Your task to perform on an android device: turn on showing notifications on the lock screen Image 0: 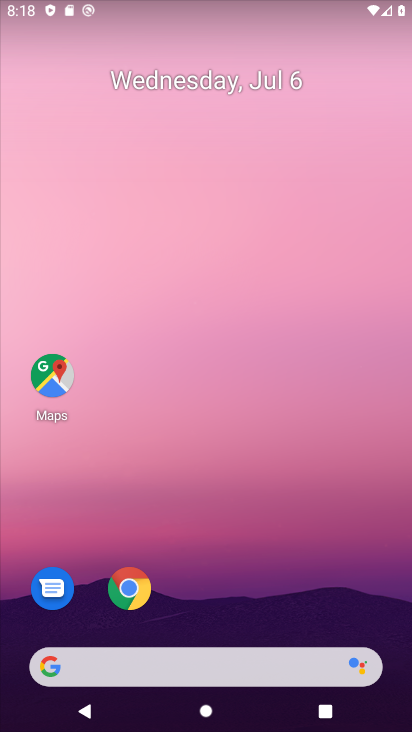
Step 0: drag from (305, 616) to (268, 42)
Your task to perform on an android device: turn on showing notifications on the lock screen Image 1: 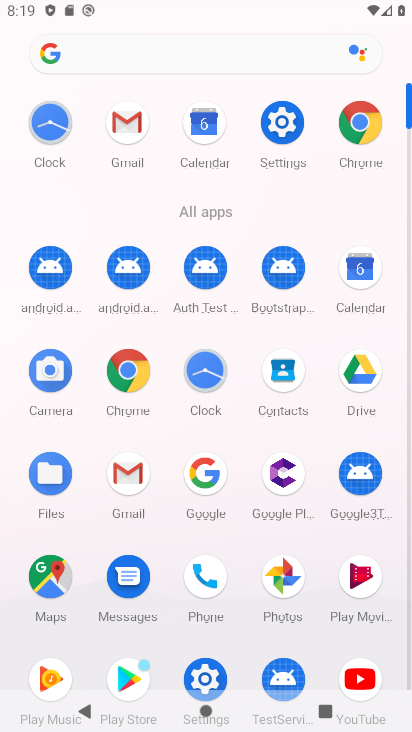
Step 1: click (203, 671)
Your task to perform on an android device: turn on showing notifications on the lock screen Image 2: 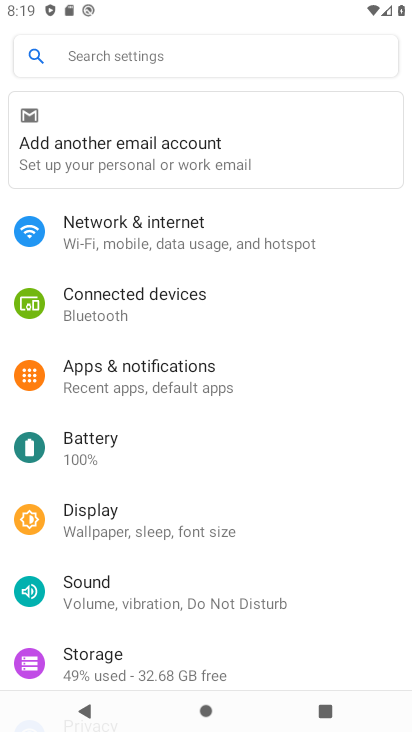
Step 2: drag from (282, 663) to (250, 429)
Your task to perform on an android device: turn on showing notifications on the lock screen Image 3: 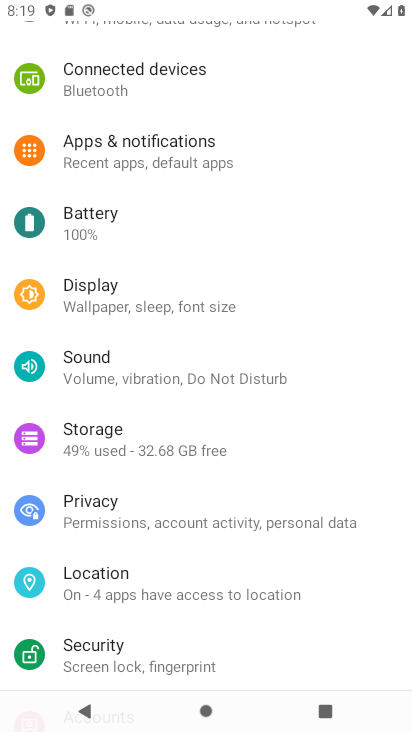
Step 3: click (264, 148)
Your task to perform on an android device: turn on showing notifications on the lock screen Image 4: 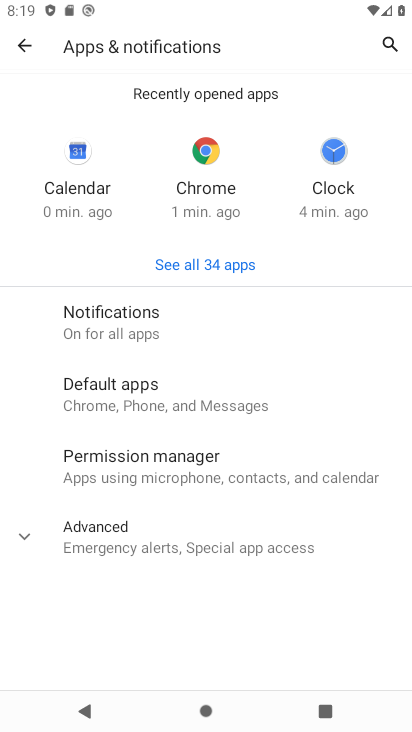
Step 4: click (248, 329)
Your task to perform on an android device: turn on showing notifications on the lock screen Image 5: 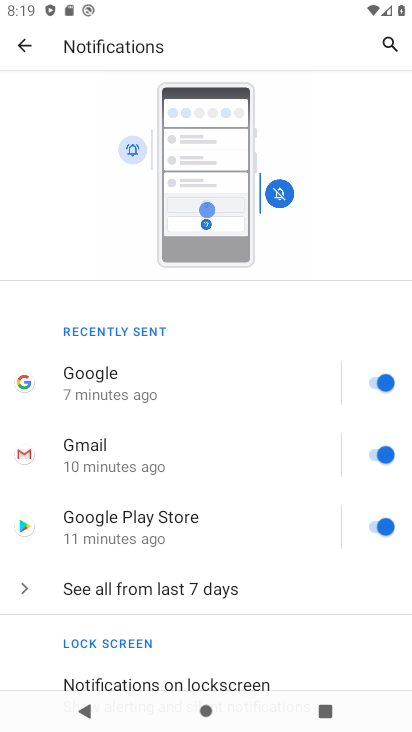
Step 5: drag from (321, 650) to (281, 98)
Your task to perform on an android device: turn on showing notifications on the lock screen Image 6: 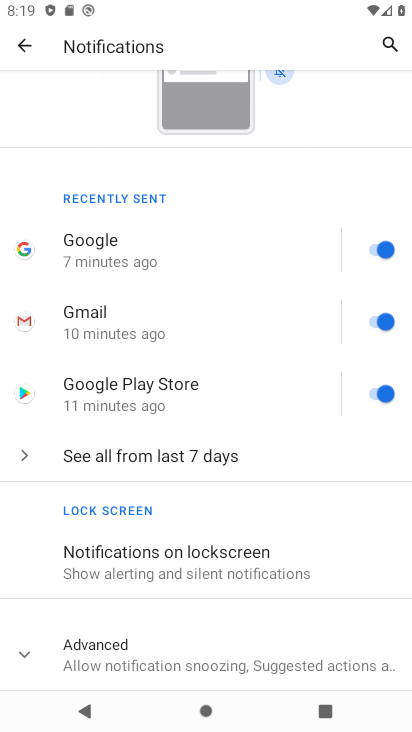
Step 6: click (307, 545)
Your task to perform on an android device: turn on showing notifications on the lock screen Image 7: 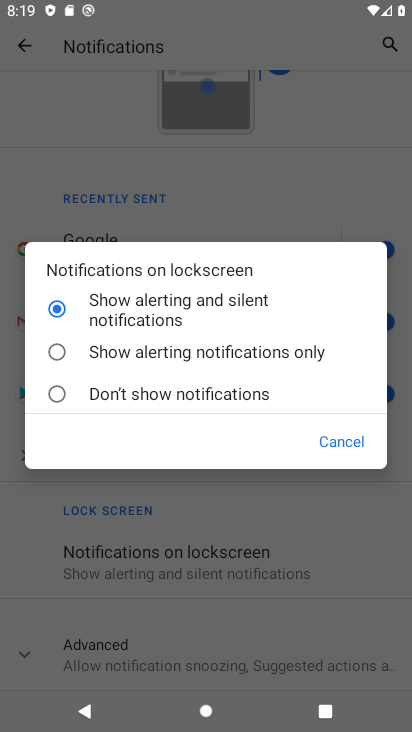
Step 7: task complete